Your task to perform on an android device: clear history in the chrome app Image 0: 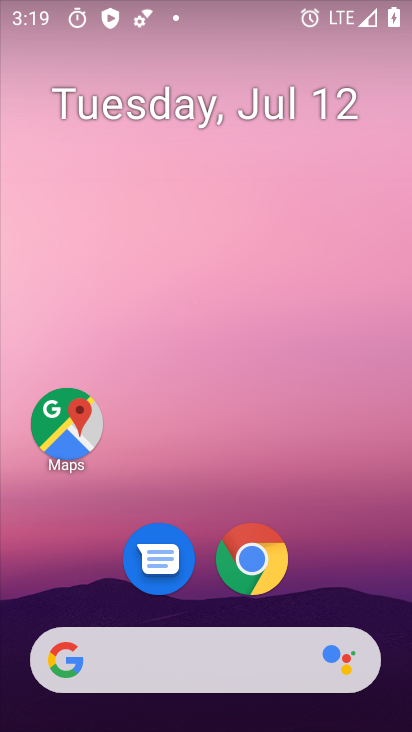
Step 0: drag from (368, 592) to (410, 153)
Your task to perform on an android device: clear history in the chrome app Image 1: 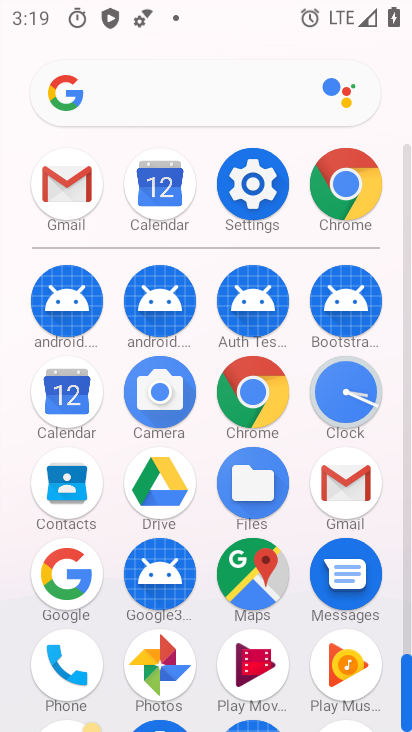
Step 1: click (263, 389)
Your task to perform on an android device: clear history in the chrome app Image 2: 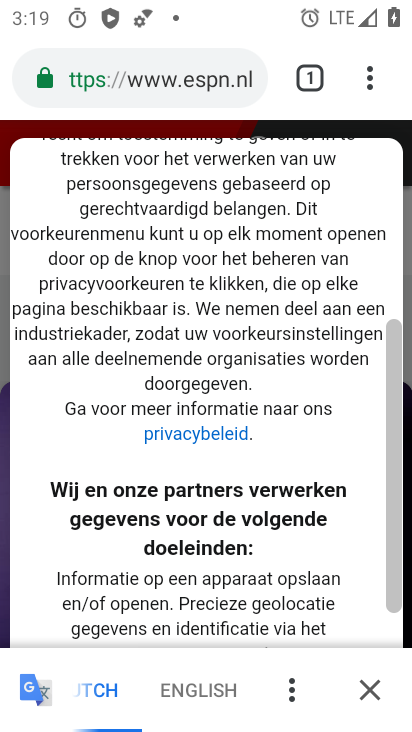
Step 2: click (367, 84)
Your task to perform on an android device: clear history in the chrome app Image 3: 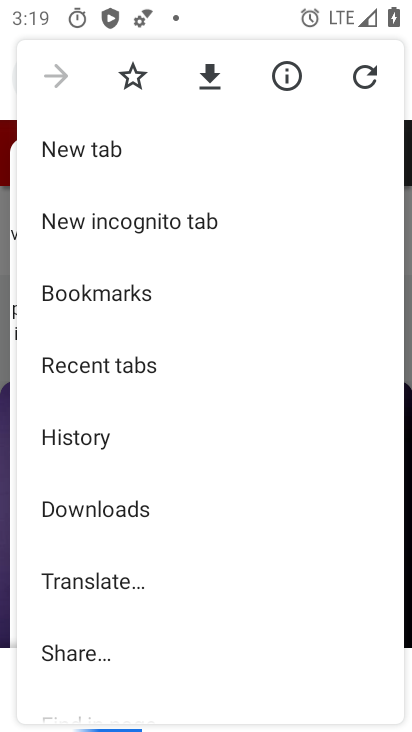
Step 3: drag from (306, 403) to (312, 349)
Your task to perform on an android device: clear history in the chrome app Image 4: 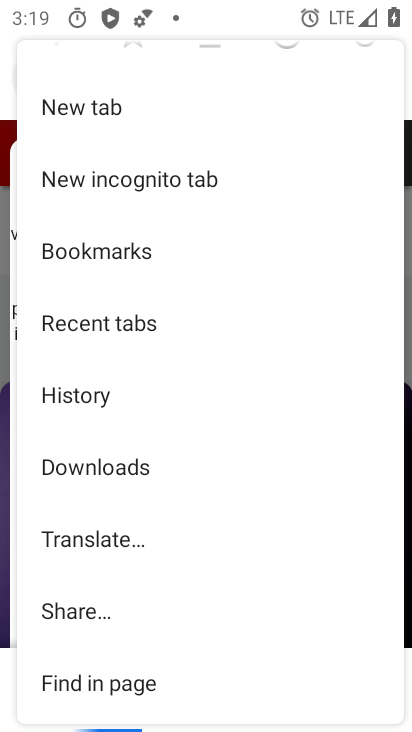
Step 4: drag from (318, 475) to (316, 361)
Your task to perform on an android device: clear history in the chrome app Image 5: 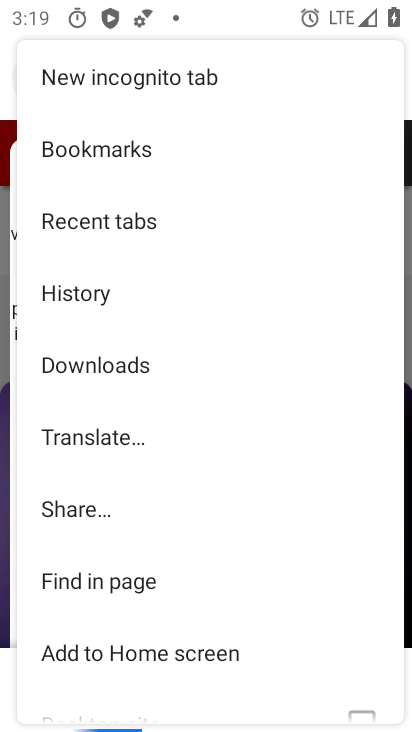
Step 5: drag from (309, 468) to (308, 230)
Your task to perform on an android device: clear history in the chrome app Image 6: 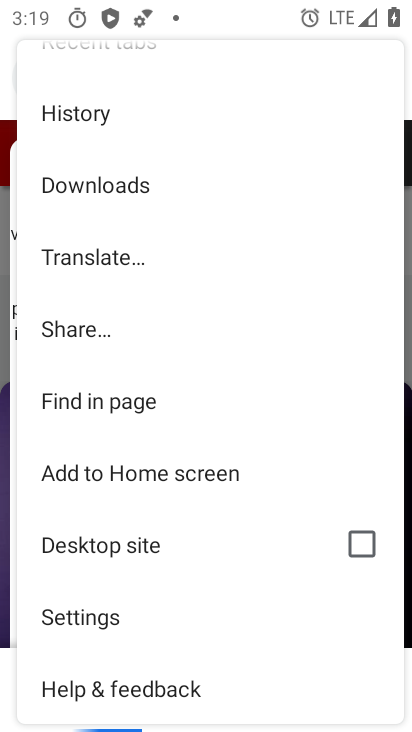
Step 6: click (165, 108)
Your task to perform on an android device: clear history in the chrome app Image 7: 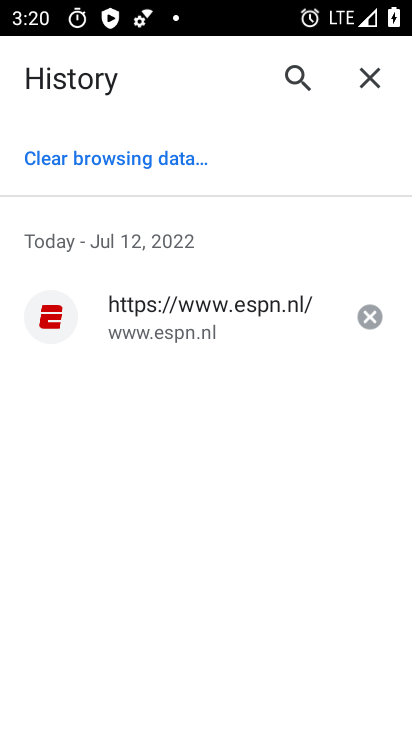
Step 7: click (161, 165)
Your task to perform on an android device: clear history in the chrome app Image 8: 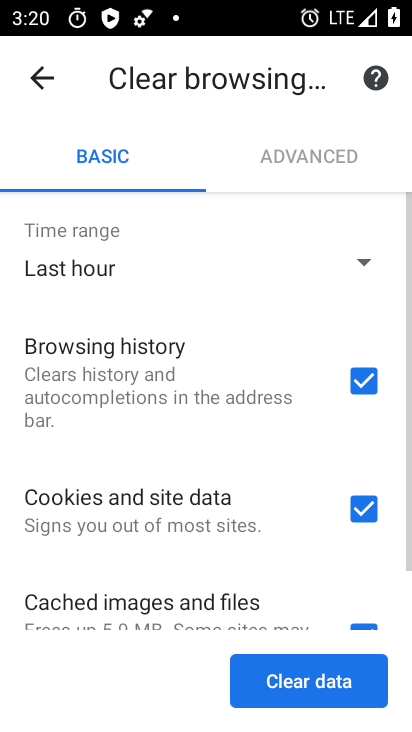
Step 8: click (330, 688)
Your task to perform on an android device: clear history in the chrome app Image 9: 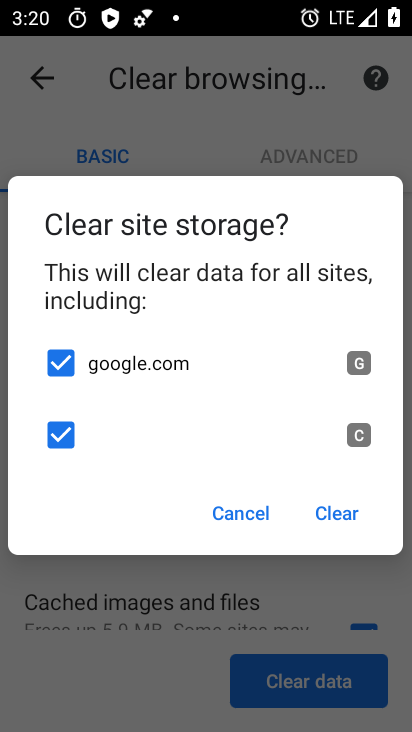
Step 9: click (338, 509)
Your task to perform on an android device: clear history in the chrome app Image 10: 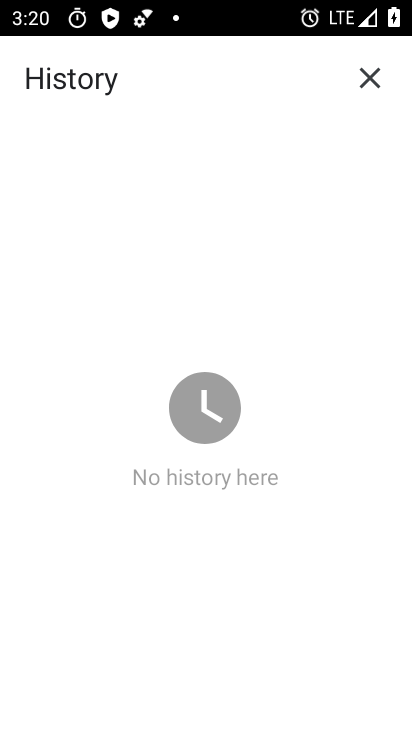
Step 10: task complete